Your task to perform on an android device: all mails in gmail Image 0: 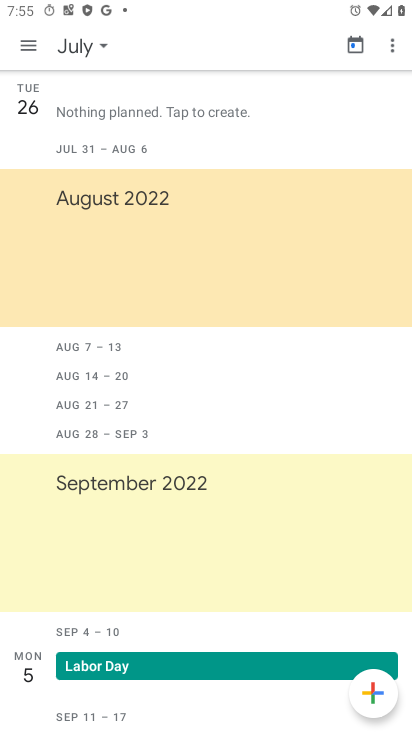
Step 0: press home button
Your task to perform on an android device: all mails in gmail Image 1: 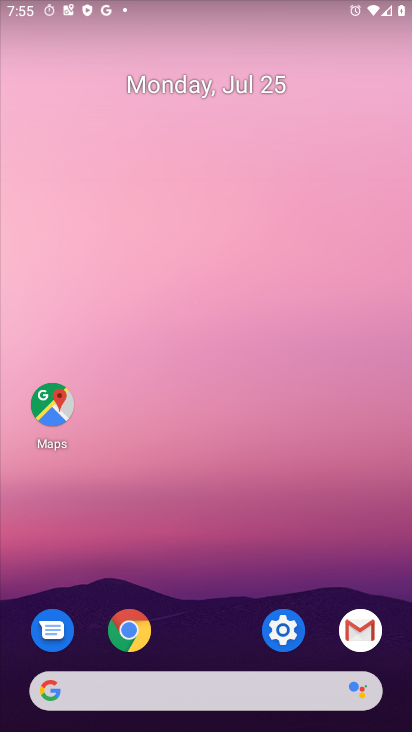
Step 1: click (351, 625)
Your task to perform on an android device: all mails in gmail Image 2: 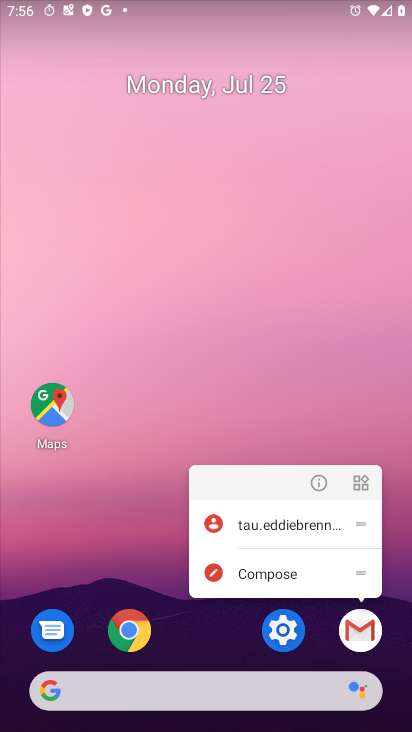
Step 2: click (351, 621)
Your task to perform on an android device: all mails in gmail Image 3: 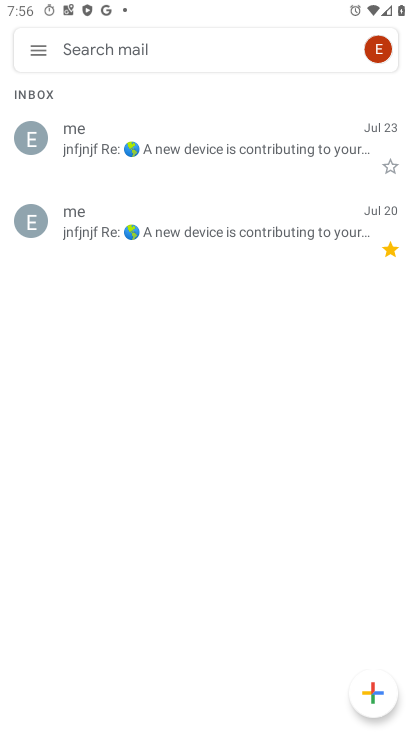
Step 3: click (36, 52)
Your task to perform on an android device: all mails in gmail Image 4: 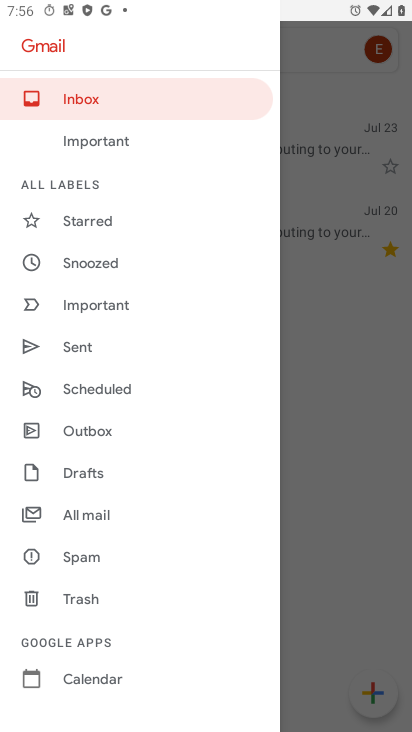
Step 4: click (93, 517)
Your task to perform on an android device: all mails in gmail Image 5: 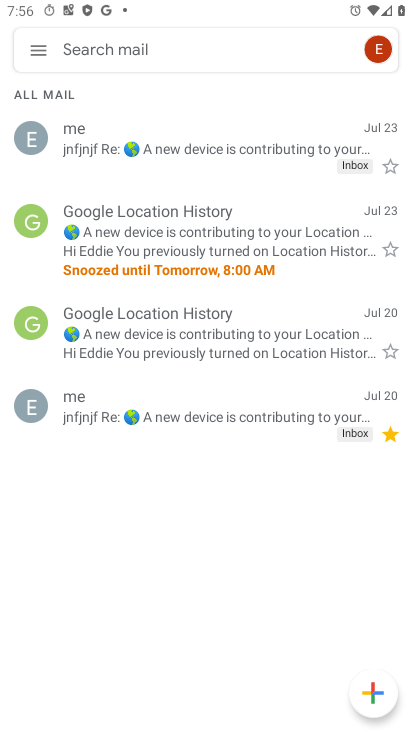
Step 5: task complete